Your task to perform on an android device: Open the phone app and click the voicemail tab. Image 0: 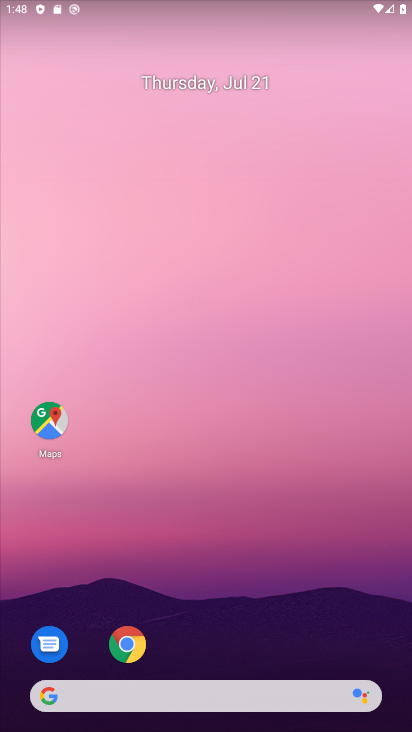
Step 0: drag from (283, 658) to (235, 80)
Your task to perform on an android device: Open the phone app and click the voicemail tab. Image 1: 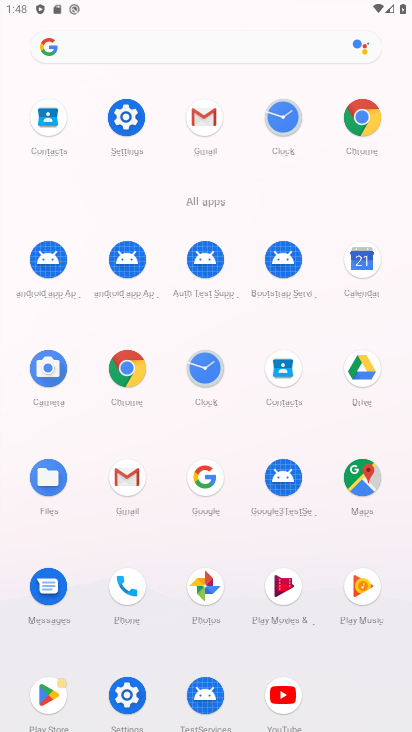
Step 1: click (127, 580)
Your task to perform on an android device: Open the phone app and click the voicemail tab. Image 2: 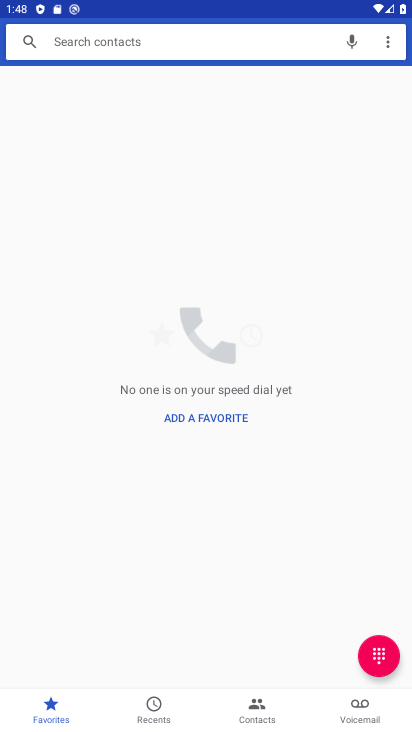
Step 2: click (353, 703)
Your task to perform on an android device: Open the phone app and click the voicemail tab. Image 3: 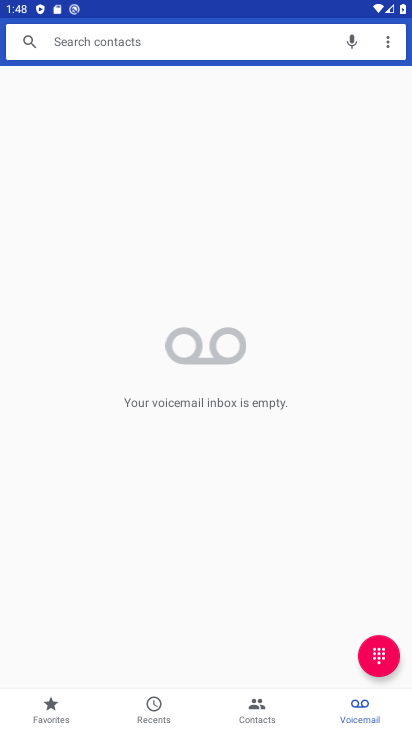
Step 3: task complete